Your task to perform on an android device: delete the emails in spam in the gmail app Image 0: 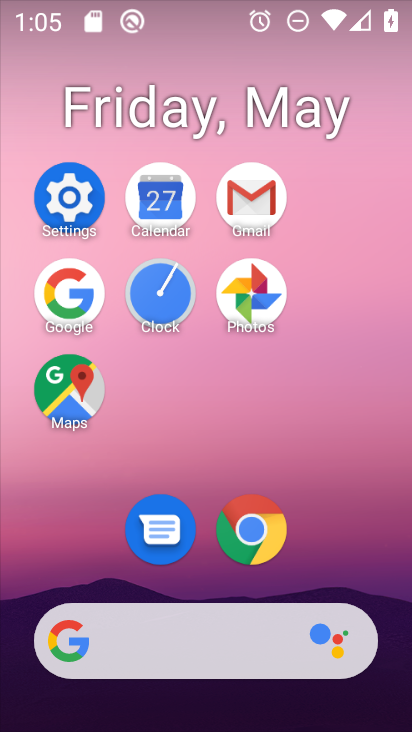
Step 0: click (247, 204)
Your task to perform on an android device: delete the emails in spam in the gmail app Image 1: 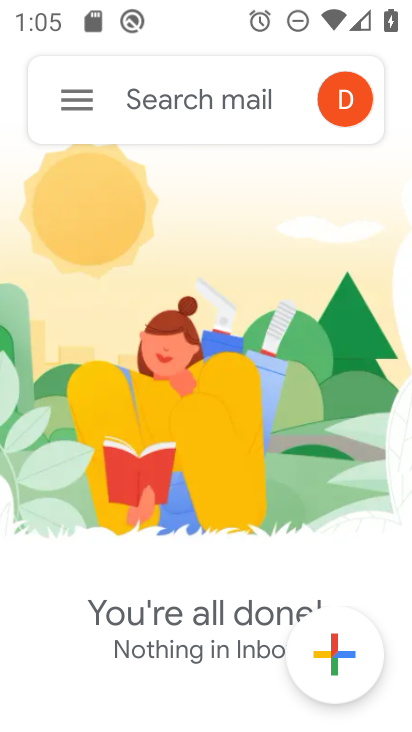
Step 1: click (58, 113)
Your task to perform on an android device: delete the emails in spam in the gmail app Image 2: 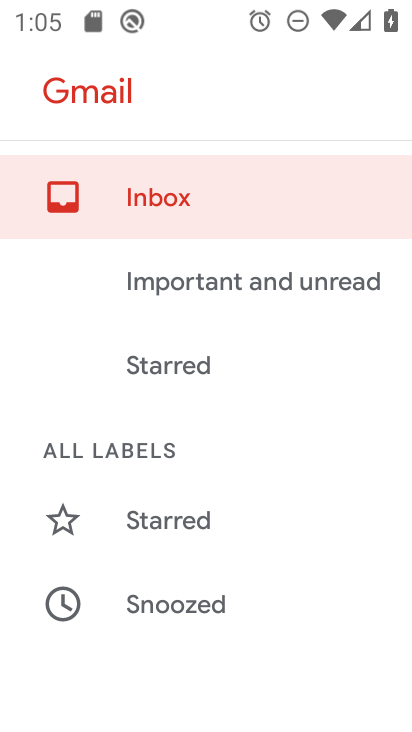
Step 2: drag from (284, 248) to (299, 631)
Your task to perform on an android device: delete the emails in spam in the gmail app Image 3: 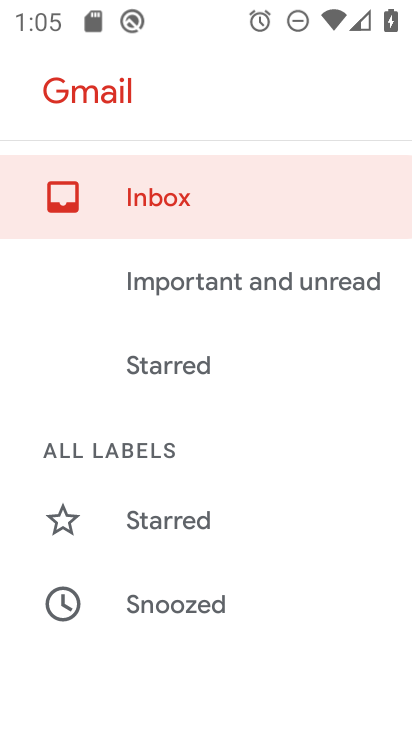
Step 3: drag from (292, 602) to (295, 232)
Your task to perform on an android device: delete the emails in spam in the gmail app Image 4: 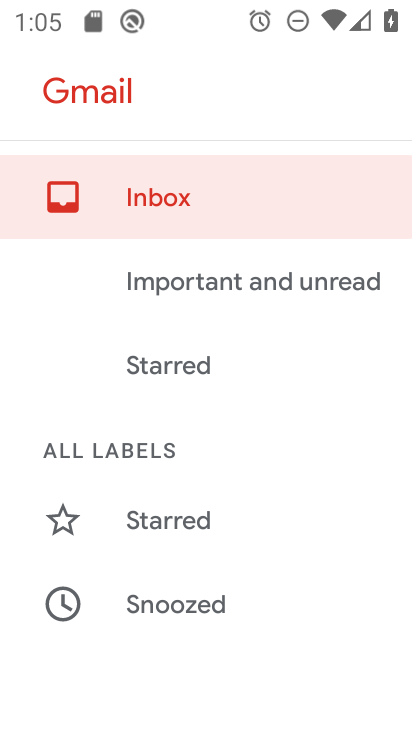
Step 4: drag from (266, 519) to (289, 212)
Your task to perform on an android device: delete the emails in spam in the gmail app Image 5: 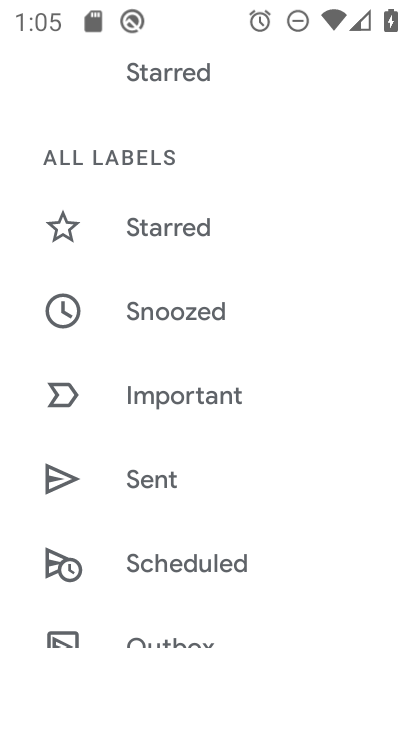
Step 5: drag from (233, 522) to (245, 216)
Your task to perform on an android device: delete the emails in spam in the gmail app Image 6: 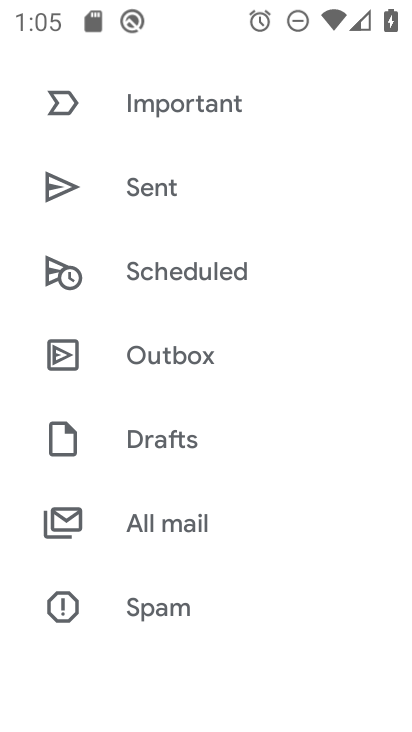
Step 6: drag from (226, 417) to (276, 195)
Your task to perform on an android device: delete the emails in spam in the gmail app Image 7: 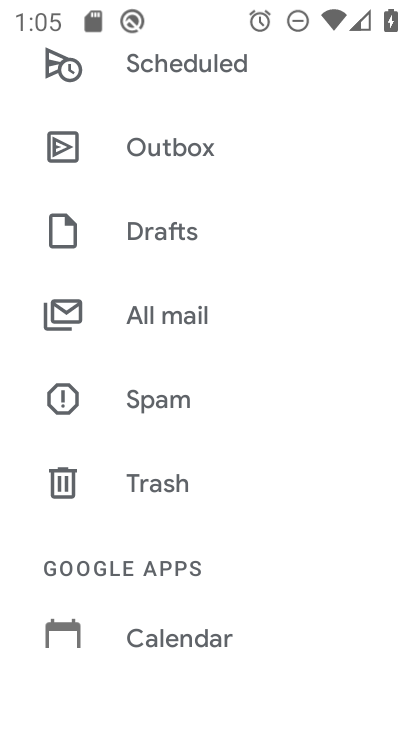
Step 7: click (208, 406)
Your task to perform on an android device: delete the emails in spam in the gmail app Image 8: 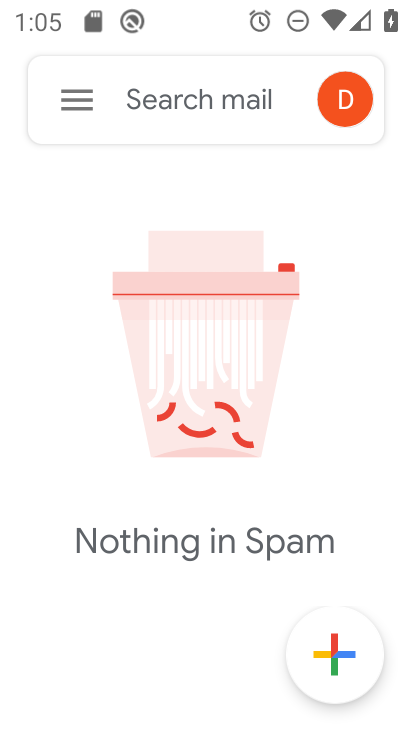
Step 8: task complete